Your task to perform on an android device: Open network settings Image 0: 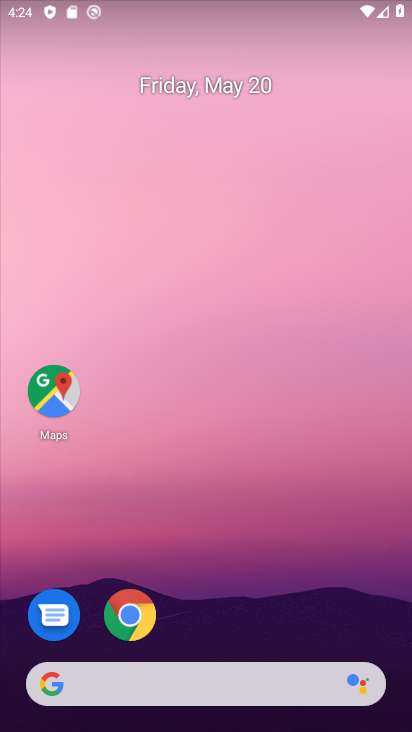
Step 0: drag from (255, 650) to (260, 43)
Your task to perform on an android device: Open network settings Image 1: 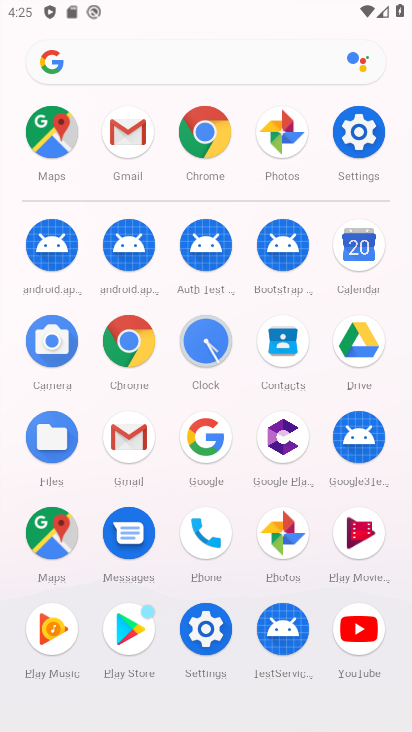
Step 1: click (350, 160)
Your task to perform on an android device: Open network settings Image 2: 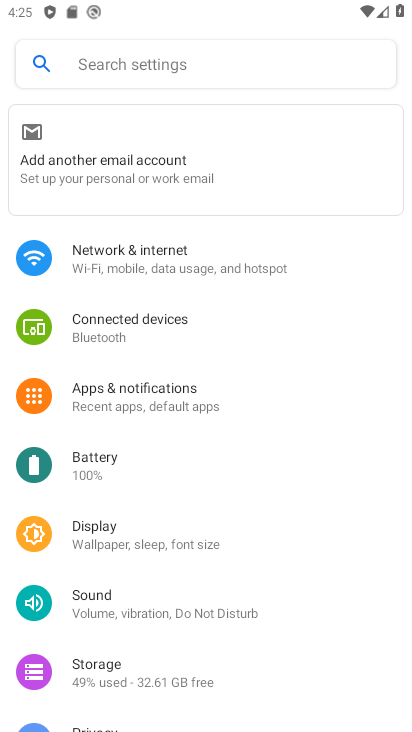
Step 2: click (181, 271)
Your task to perform on an android device: Open network settings Image 3: 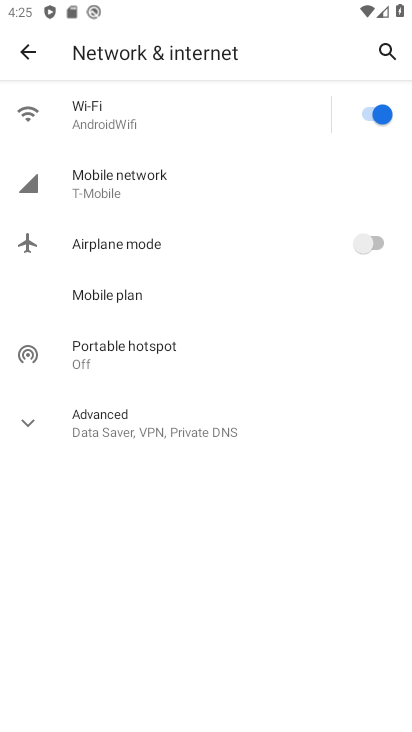
Step 3: click (160, 180)
Your task to perform on an android device: Open network settings Image 4: 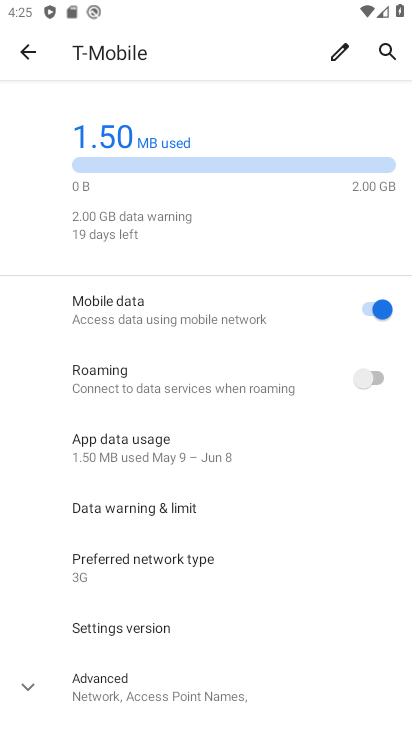
Step 4: task complete